Your task to perform on an android device: Go to Amazon Image 0: 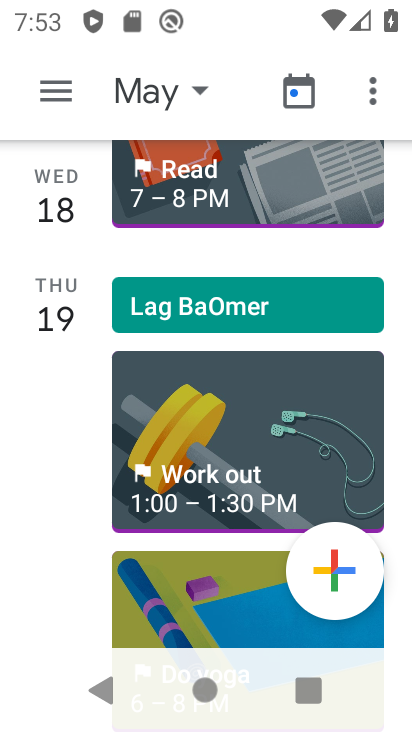
Step 0: press home button
Your task to perform on an android device: Go to Amazon Image 1: 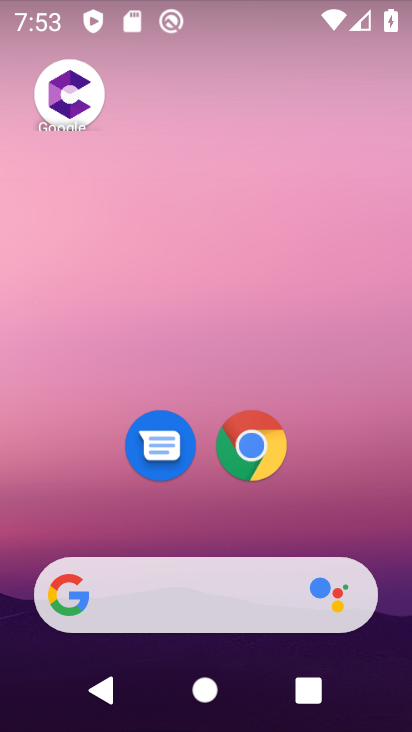
Step 1: drag from (211, 610) to (178, 128)
Your task to perform on an android device: Go to Amazon Image 2: 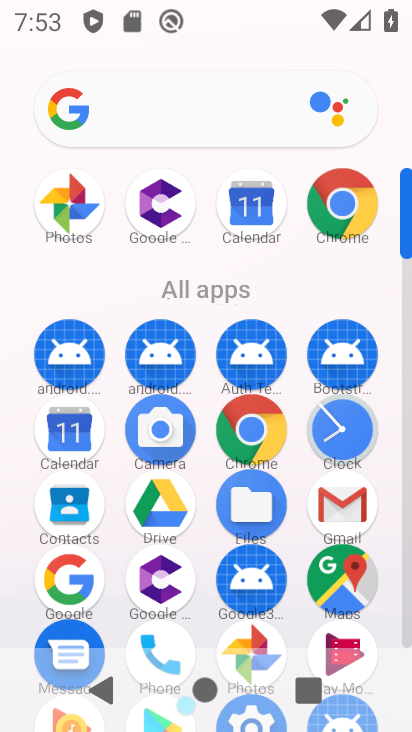
Step 2: drag from (299, 635) to (300, 397)
Your task to perform on an android device: Go to Amazon Image 3: 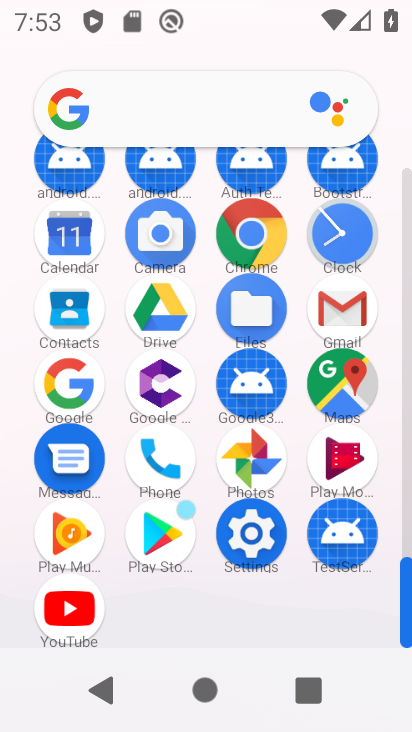
Step 3: click (250, 225)
Your task to perform on an android device: Go to Amazon Image 4: 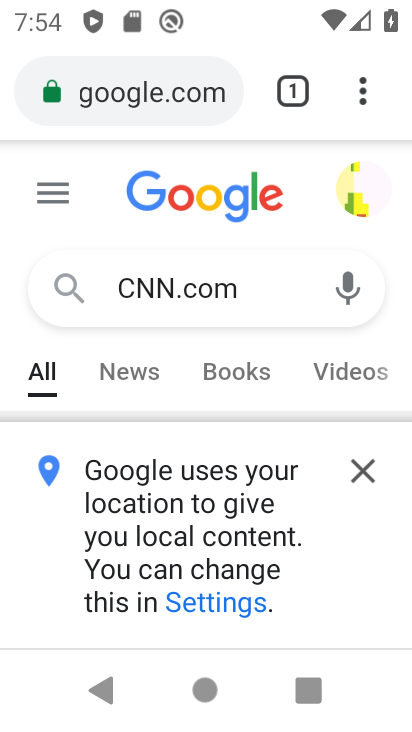
Step 4: click (165, 102)
Your task to perform on an android device: Go to Amazon Image 5: 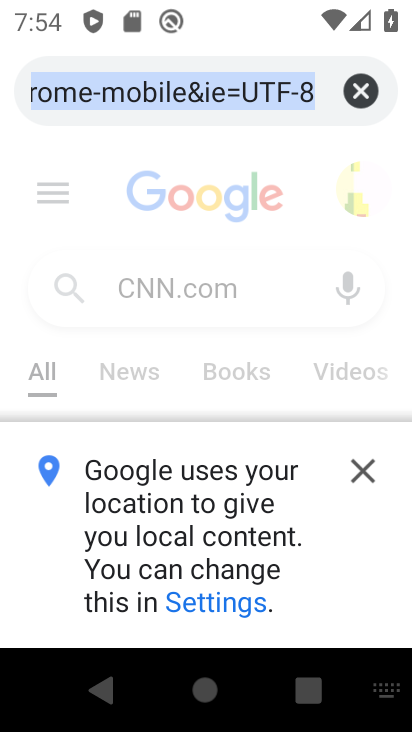
Step 5: type "amazon.com"
Your task to perform on an android device: Go to Amazon Image 6: 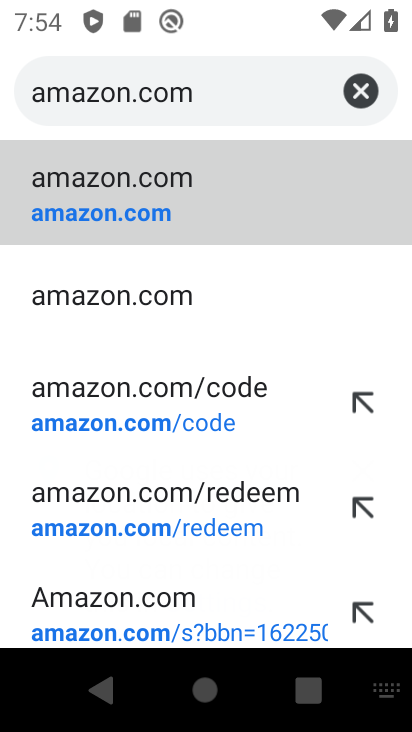
Step 6: click (140, 301)
Your task to perform on an android device: Go to Amazon Image 7: 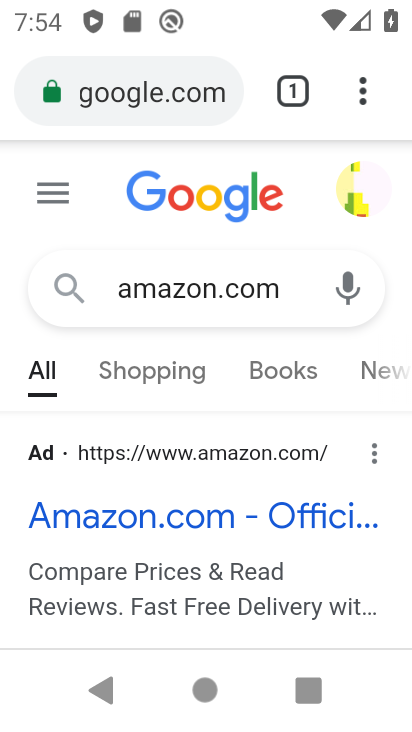
Step 7: click (203, 520)
Your task to perform on an android device: Go to Amazon Image 8: 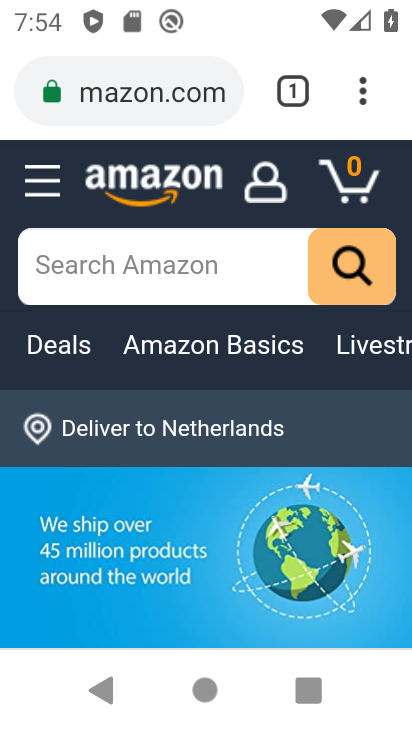
Step 8: task complete